Your task to perform on an android device: Search for Mexican restaurants on Maps Image 0: 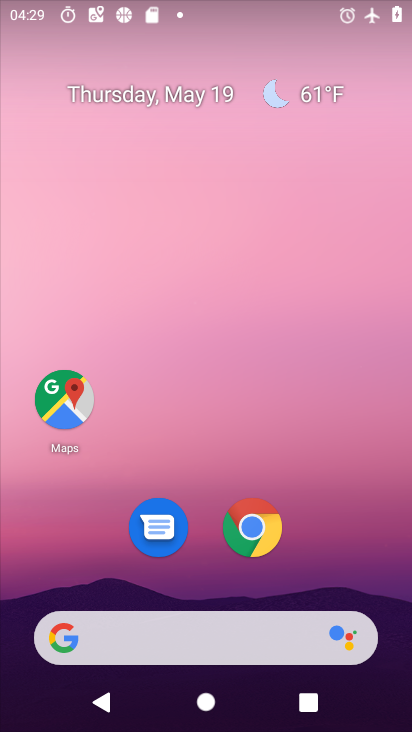
Step 0: click (78, 389)
Your task to perform on an android device: Search for Mexican restaurants on Maps Image 1: 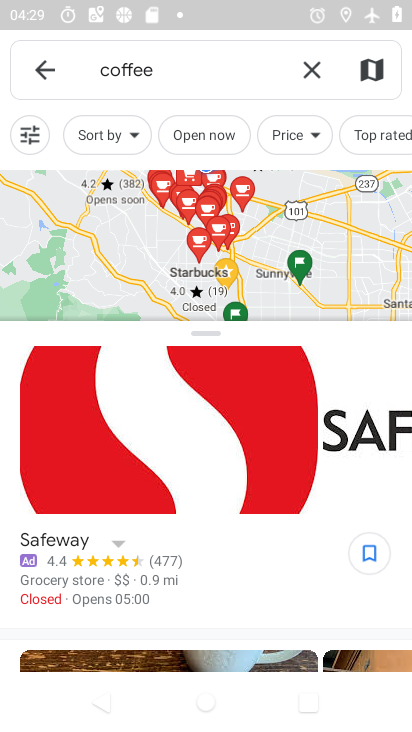
Step 1: click (304, 71)
Your task to perform on an android device: Search for Mexican restaurants on Maps Image 2: 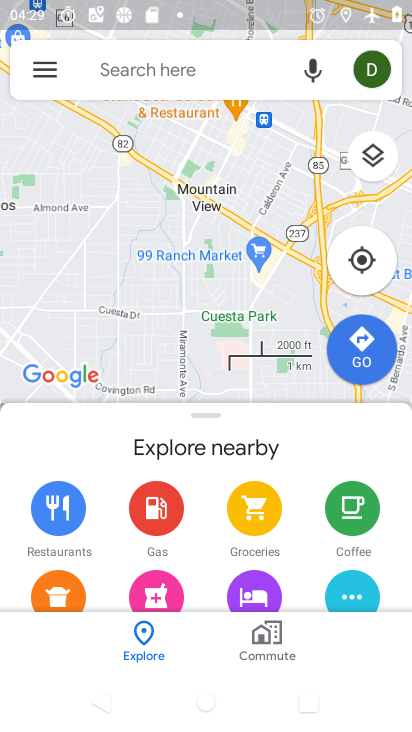
Step 2: click (173, 67)
Your task to perform on an android device: Search for Mexican restaurants on Maps Image 3: 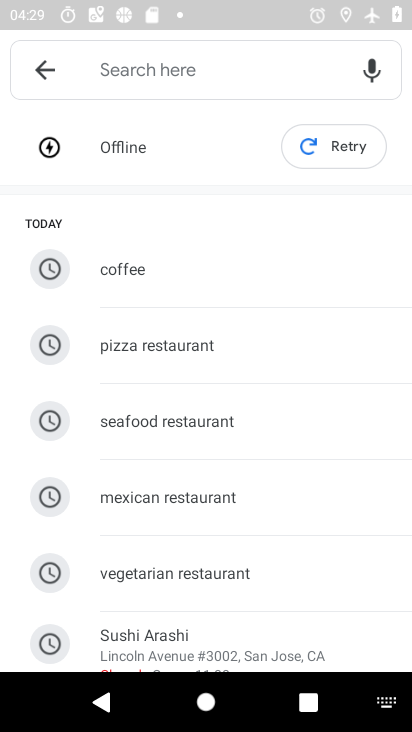
Step 3: click (166, 485)
Your task to perform on an android device: Search for Mexican restaurants on Maps Image 4: 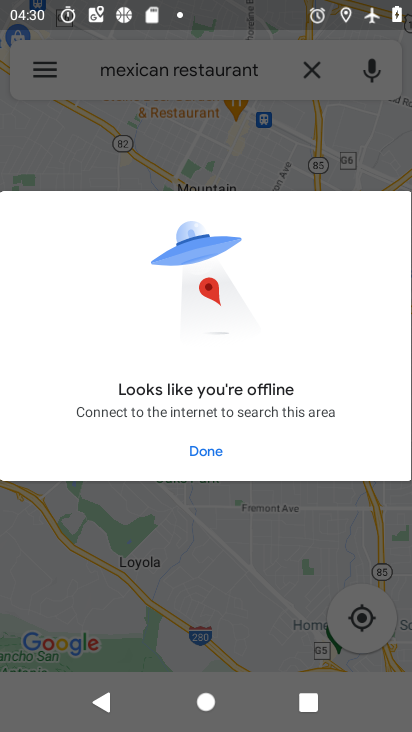
Step 4: click (203, 446)
Your task to perform on an android device: Search for Mexican restaurants on Maps Image 5: 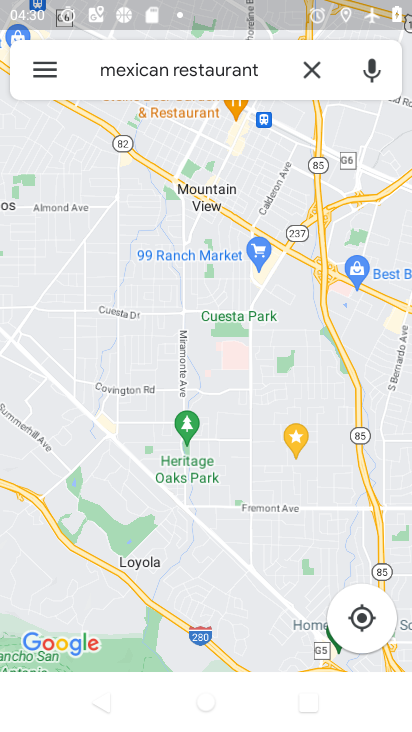
Step 5: drag from (334, 11) to (266, 492)
Your task to perform on an android device: Search for Mexican restaurants on Maps Image 6: 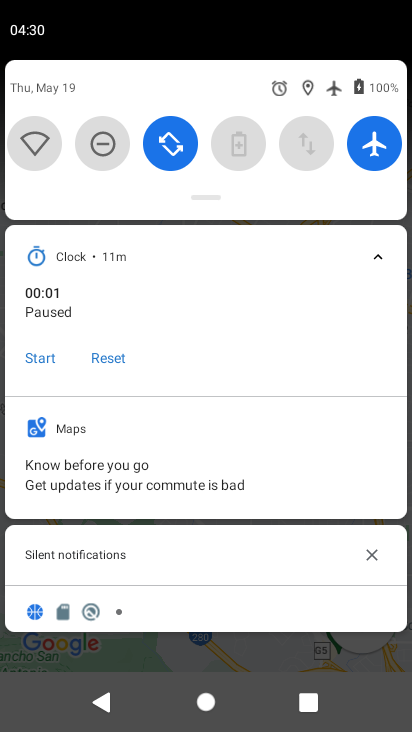
Step 6: click (385, 142)
Your task to perform on an android device: Search for Mexican restaurants on Maps Image 7: 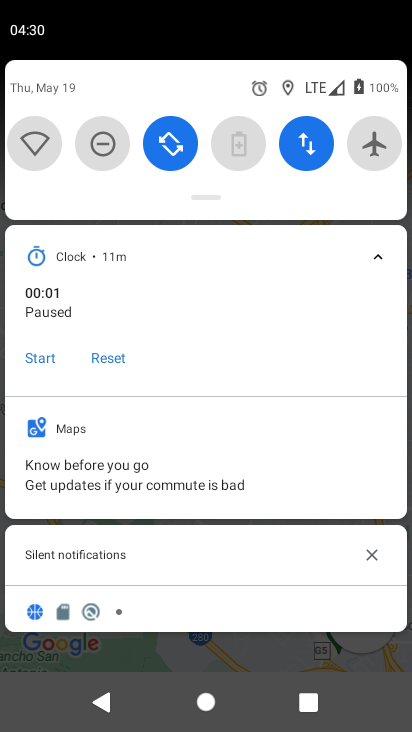
Step 7: click (183, 649)
Your task to perform on an android device: Search for Mexican restaurants on Maps Image 8: 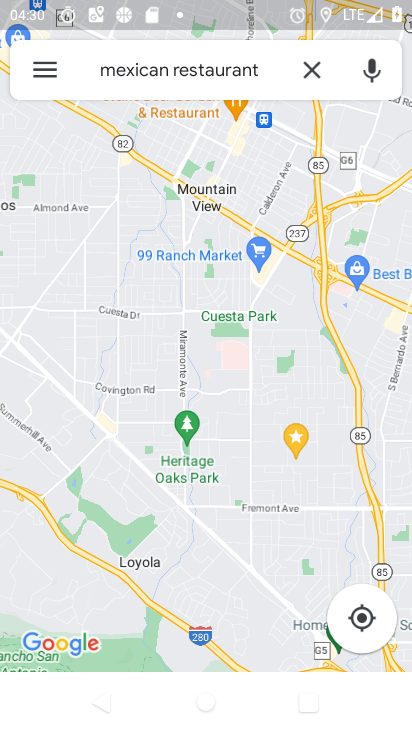
Step 8: click (266, 65)
Your task to perform on an android device: Search for Mexican restaurants on Maps Image 9: 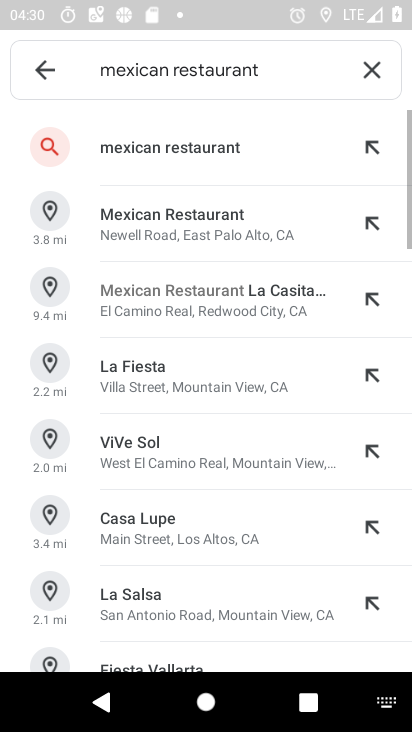
Step 9: click (152, 142)
Your task to perform on an android device: Search for Mexican restaurants on Maps Image 10: 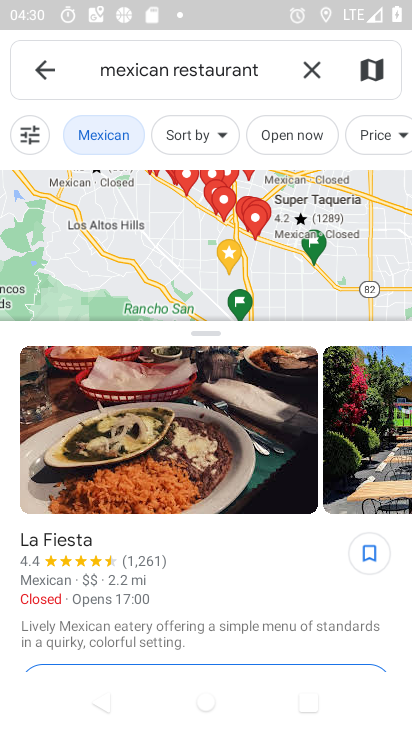
Step 10: task complete